Your task to perform on an android device: Open calendar and show me the fourth week of next month Image 0: 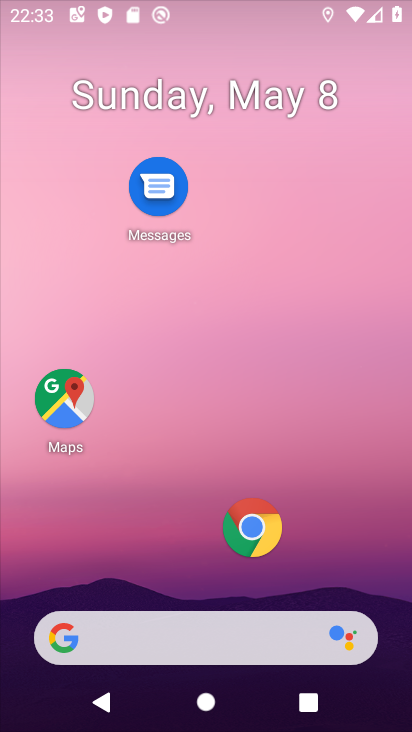
Step 0: drag from (182, 561) to (163, 139)
Your task to perform on an android device: Open calendar and show me the fourth week of next month Image 1: 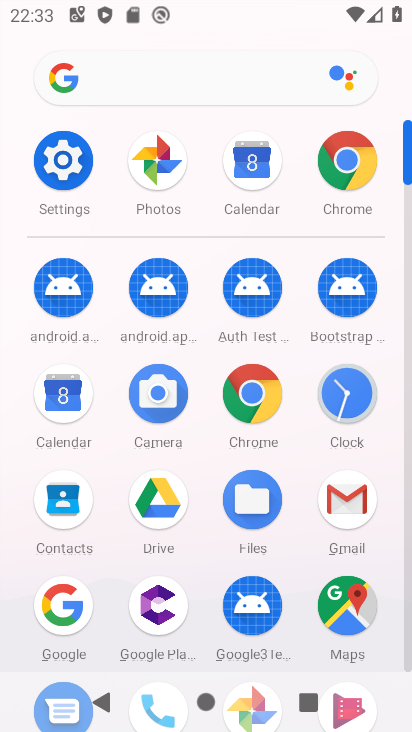
Step 1: click (56, 398)
Your task to perform on an android device: Open calendar and show me the fourth week of next month Image 2: 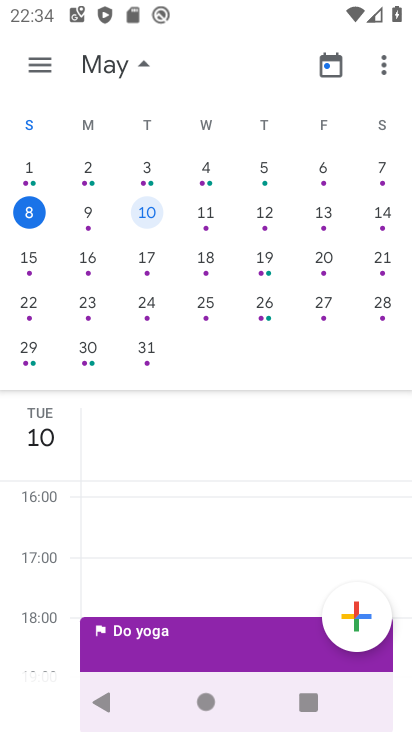
Step 2: drag from (374, 349) to (9, 356)
Your task to perform on an android device: Open calendar and show me the fourth week of next month Image 3: 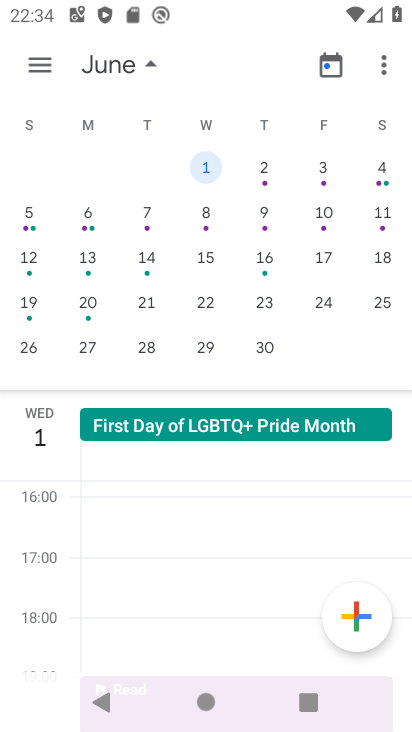
Step 3: click (211, 302)
Your task to perform on an android device: Open calendar and show me the fourth week of next month Image 4: 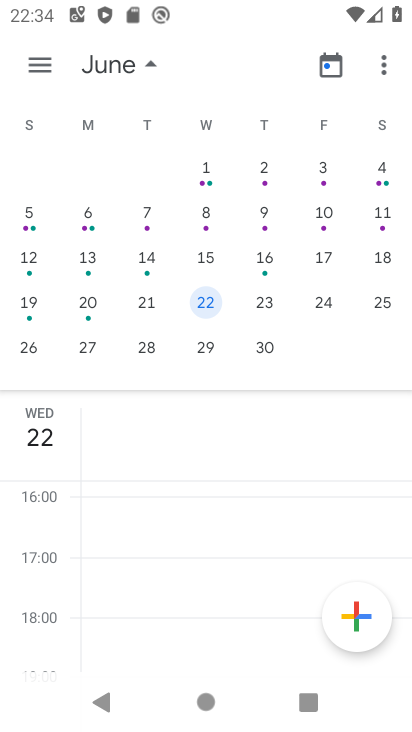
Step 4: task complete